Your task to perform on an android device: toggle translation in the chrome app Image 0: 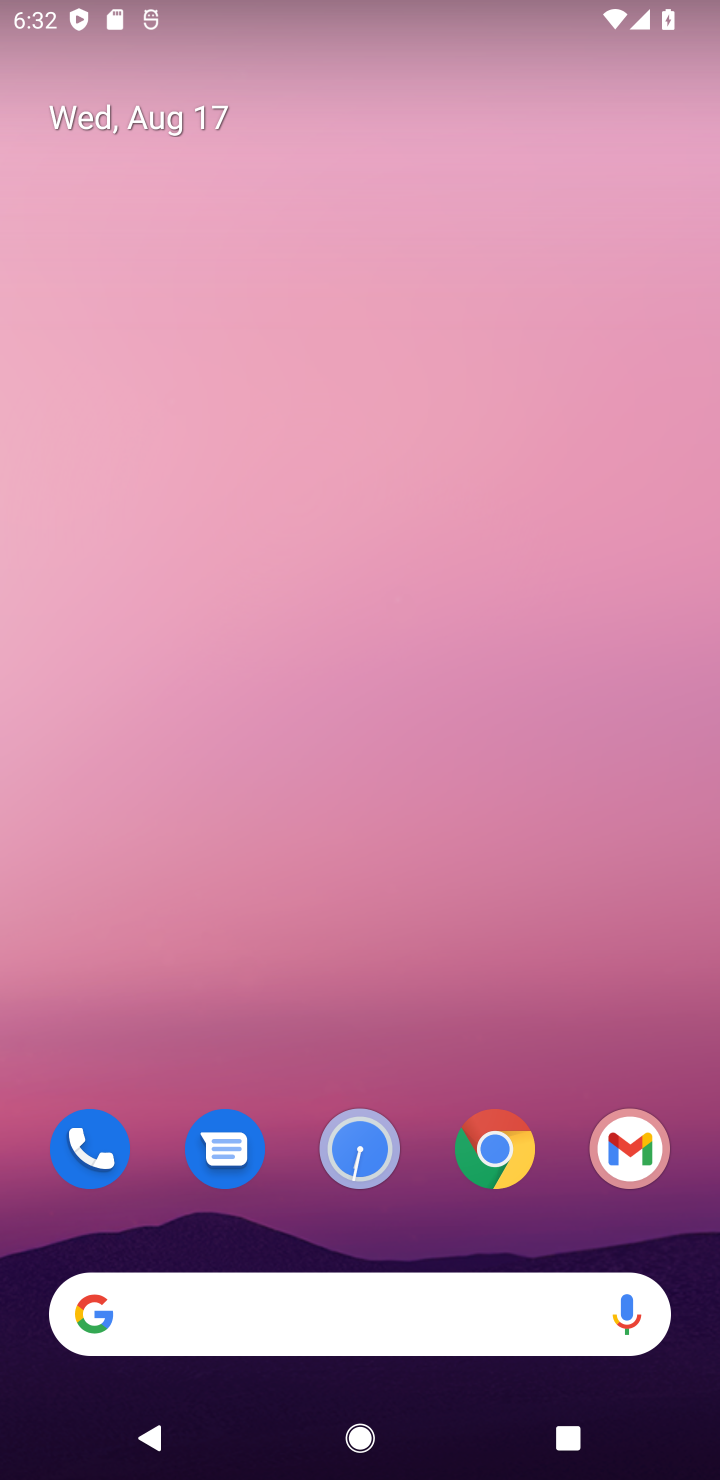
Step 0: click (499, 1156)
Your task to perform on an android device: toggle translation in the chrome app Image 1: 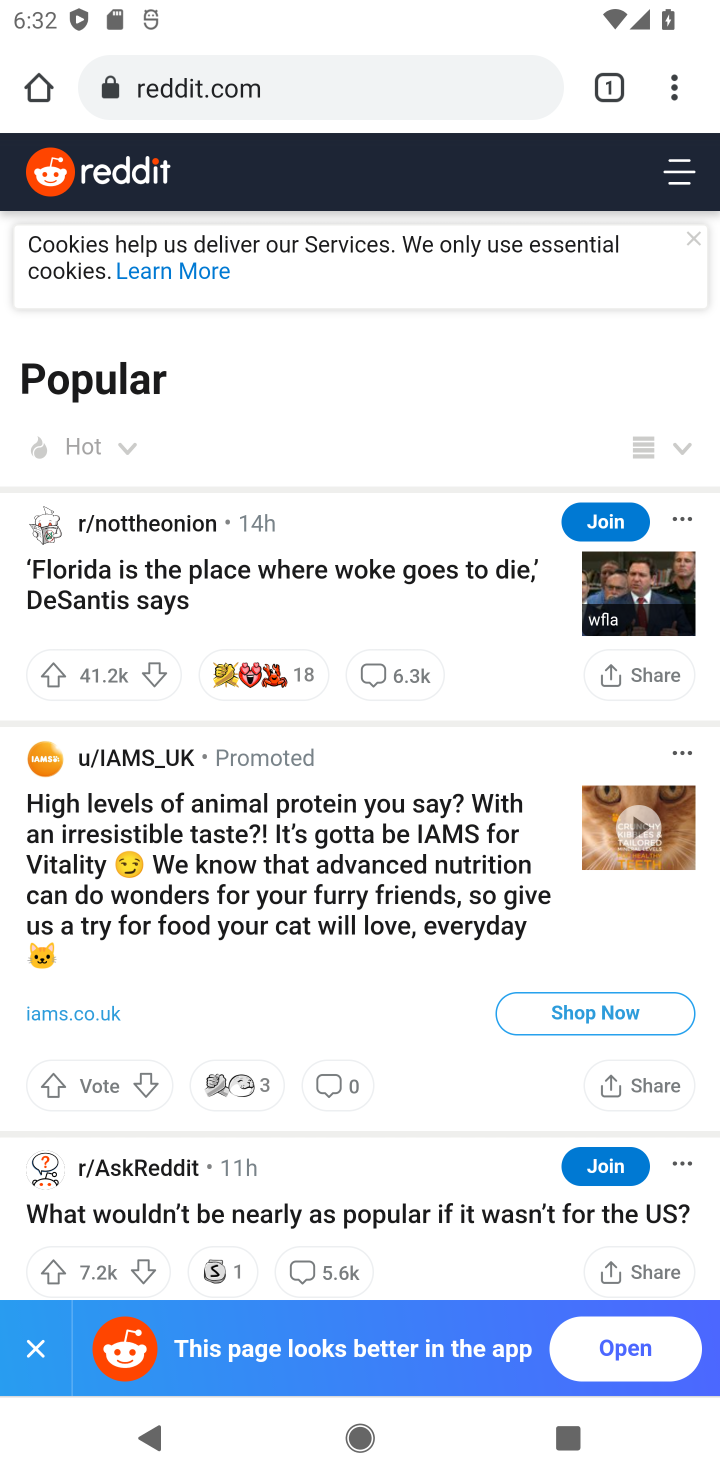
Step 1: click (675, 82)
Your task to perform on an android device: toggle translation in the chrome app Image 2: 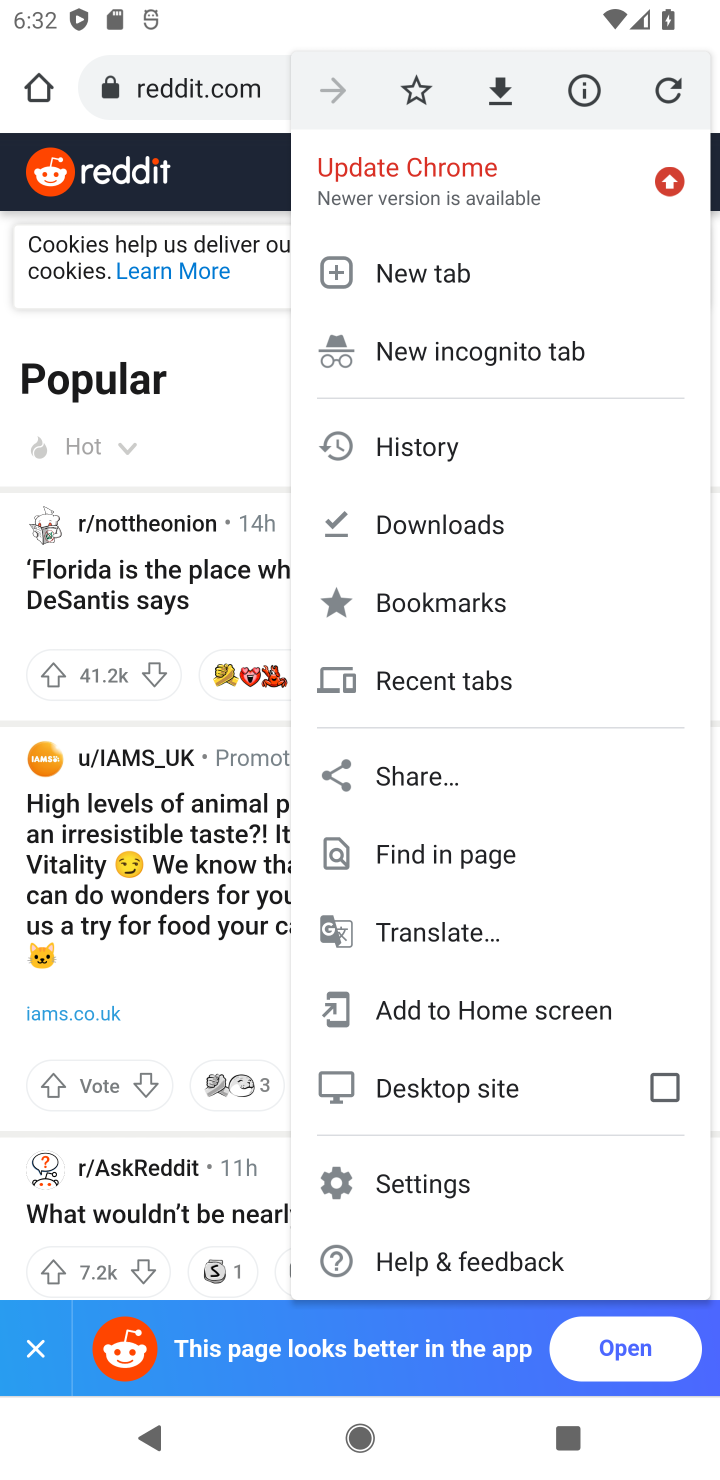
Step 2: click (435, 1177)
Your task to perform on an android device: toggle translation in the chrome app Image 3: 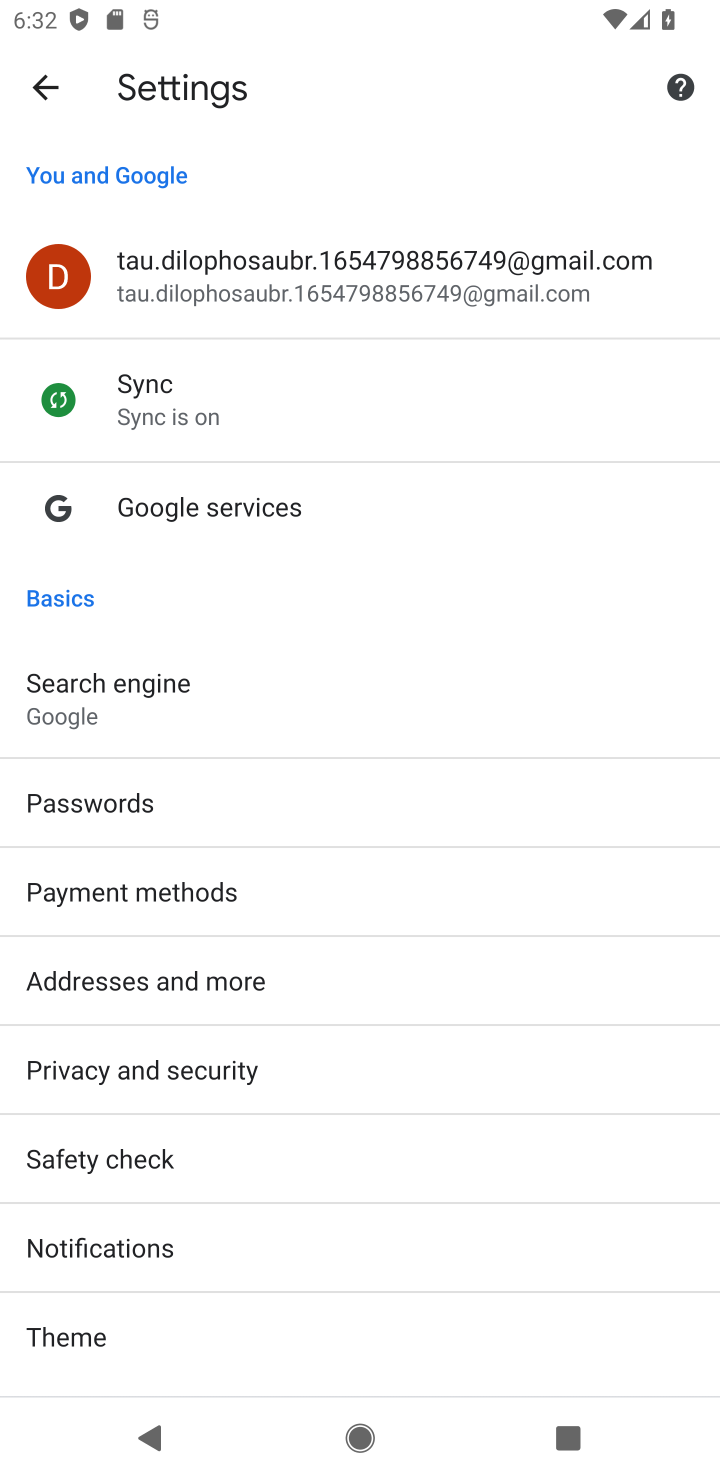
Step 3: drag from (371, 1185) to (353, 879)
Your task to perform on an android device: toggle translation in the chrome app Image 4: 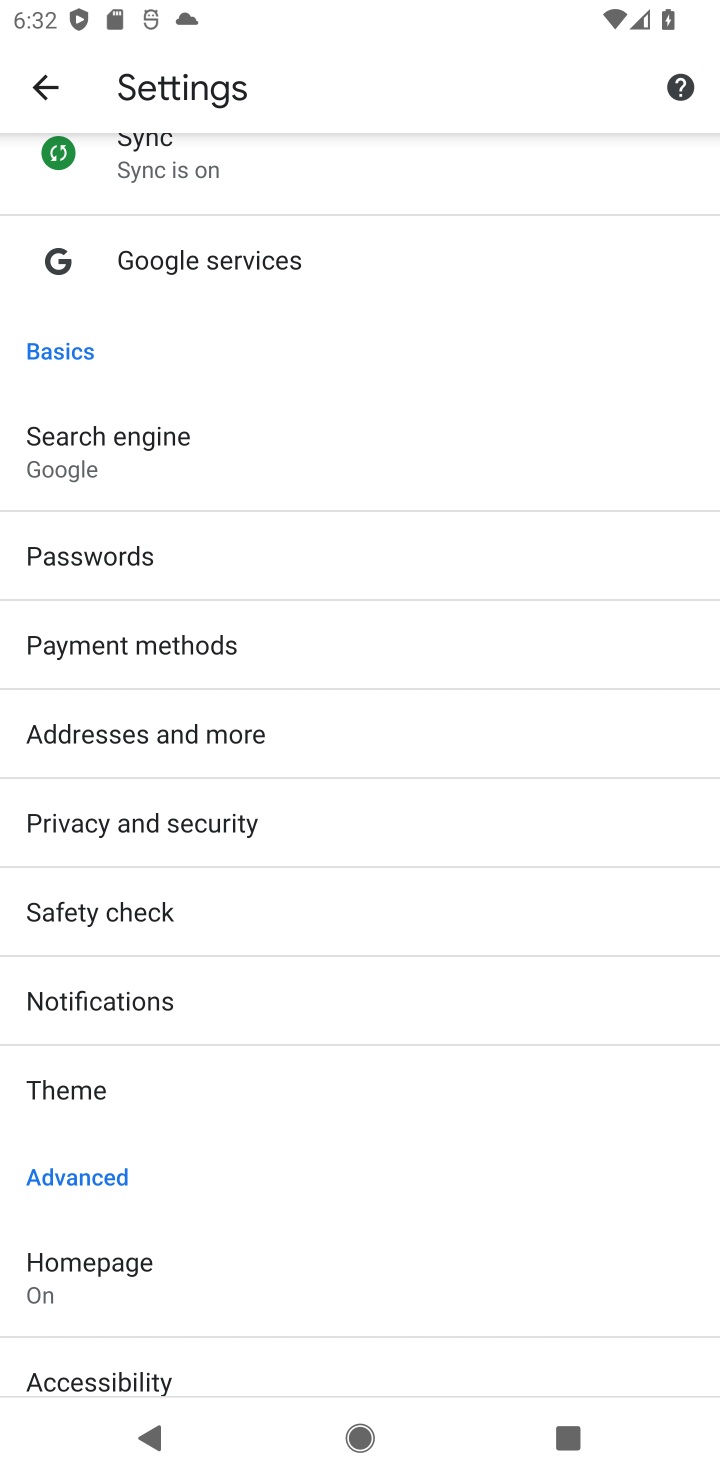
Step 4: drag from (272, 1235) to (238, 768)
Your task to perform on an android device: toggle translation in the chrome app Image 5: 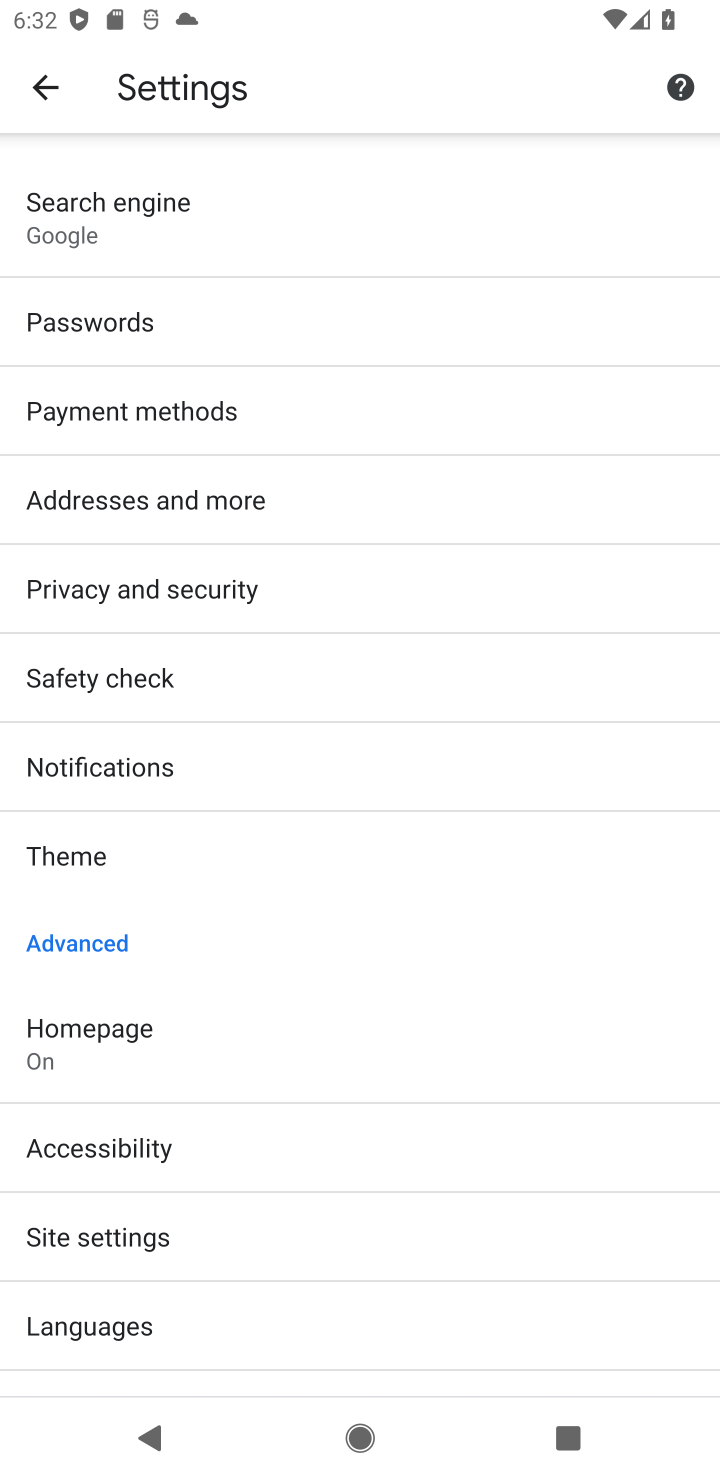
Step 5: click (120, 1320)
Your task to perform on an android device: toggle translation in the chrome app Image 6: 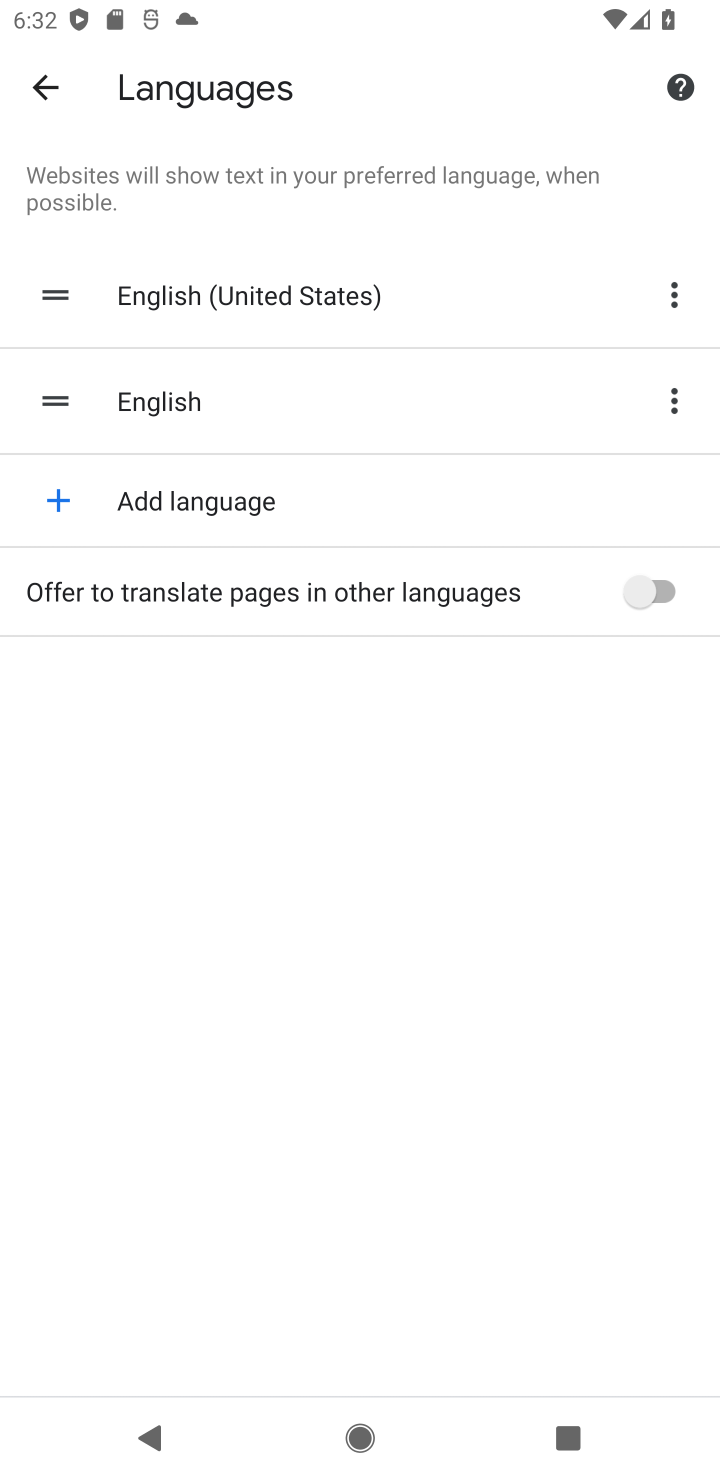
Step 6: click (637, 599)
Your task to perform on an android device: toggle translation in the chrome app Image 7: 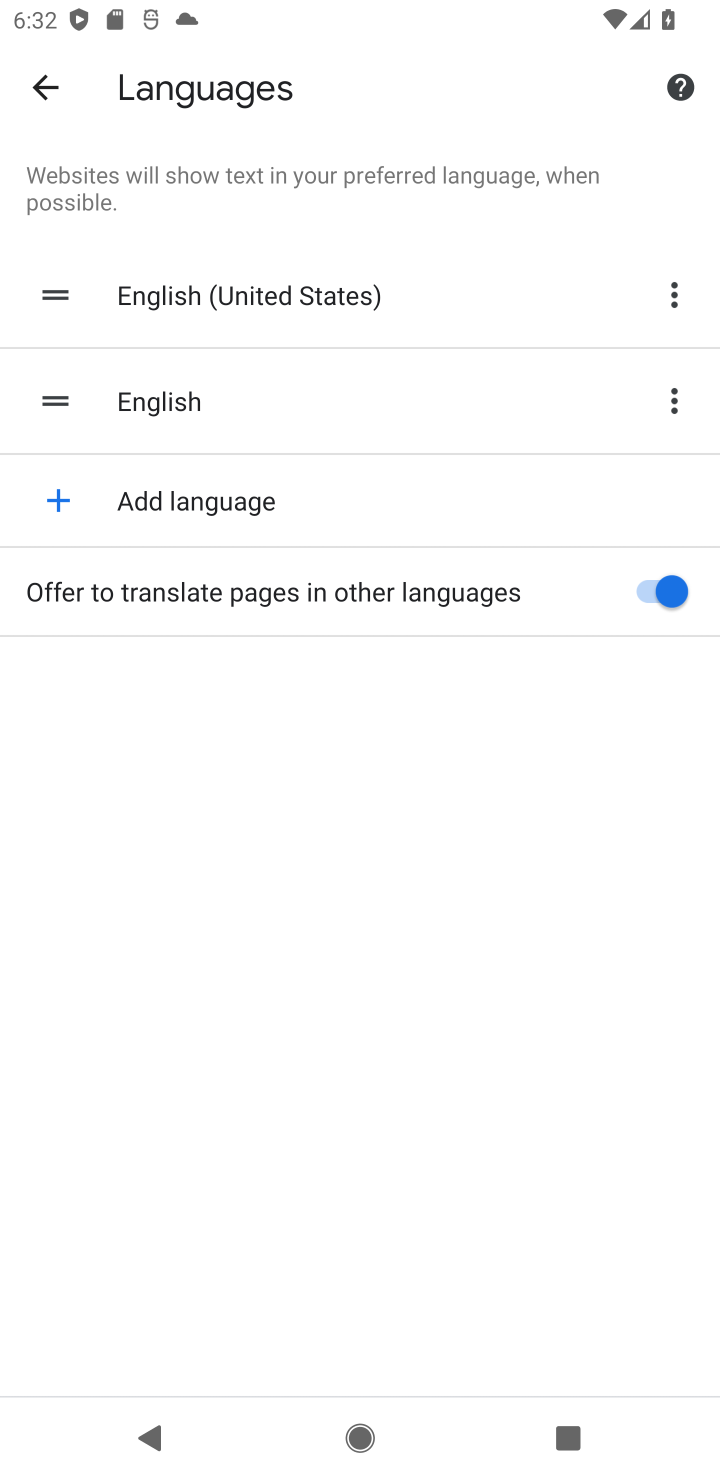
Step 7: task complete